Your task to perform on an android device: Find coffee shops on Maps Image 0: 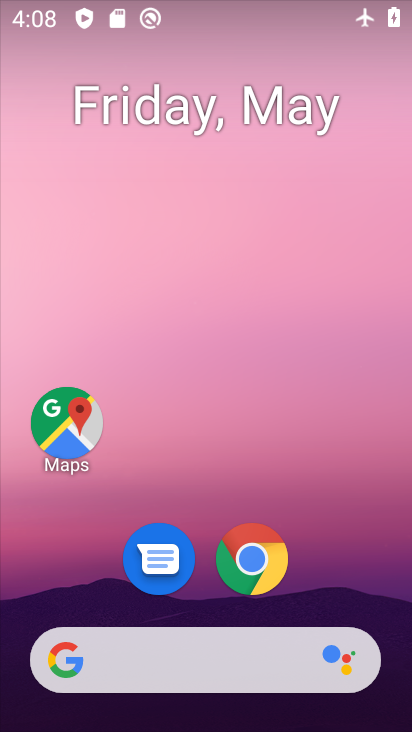
Step 0: click (57, 415)
Your task to perform on an android device: Find coffee shops on Maps Image 1: 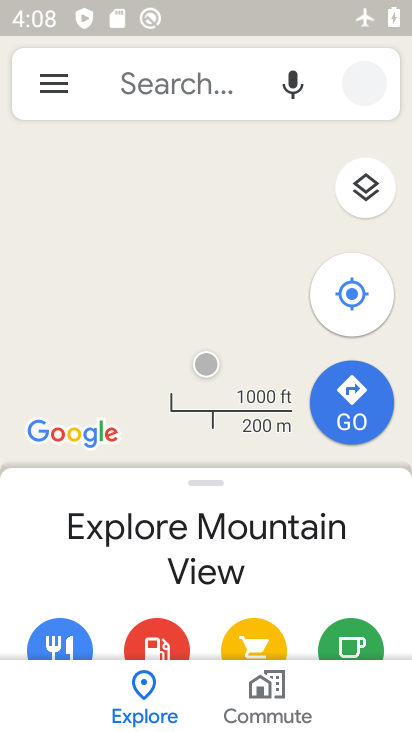
Step 1: click (165, 97)
Your task to perform on an android device: Find coffee shops on Maps Image 2: 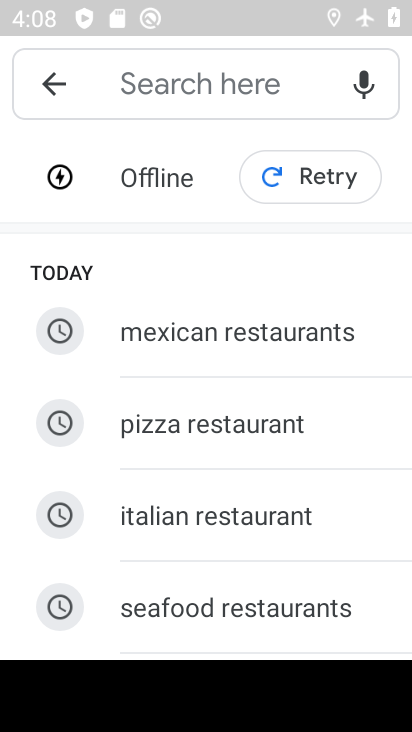
Step 2: drag from (326, 520) to (271, 111)
Your task to perform on an android device: Find coffee shops on Maps Image 3: 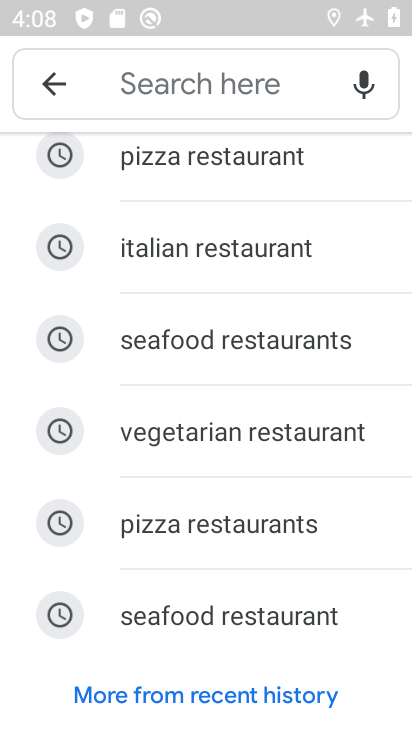
Step 3: drag from (165, 13) to (160, 672)
Your task to perform on an android device: Find coffee shops on Maps Image 4: 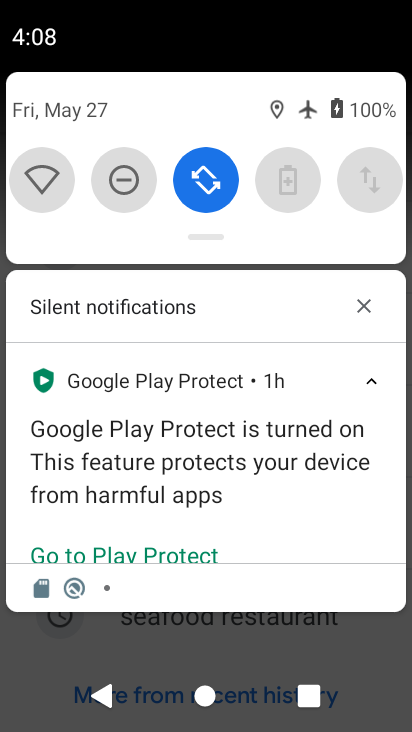
Step 4: drag from (324, 179) to (60, 199)
Your task to perform on an android device: Find coffee shops on Maps Image 5: 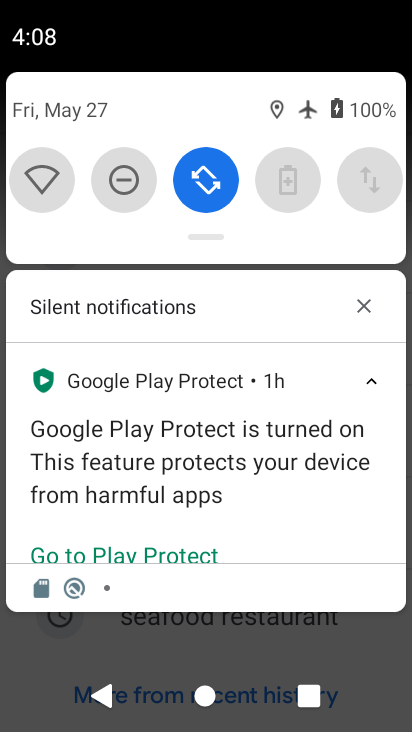
Step 5: drag from (204, 216) to (164, 715)
Your task to perform on an android device: Find coffee shops on Maps Image 6: 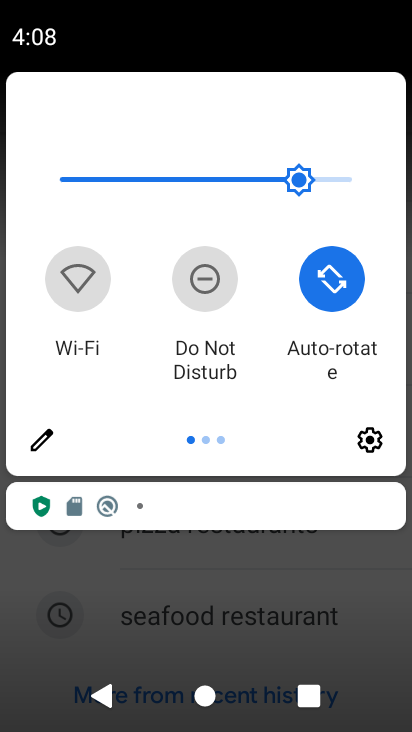
Step 6: drag from (324, 381) to (13, 412)
Your task to perform on an android device: Find coffee shops on Maps Image 7: 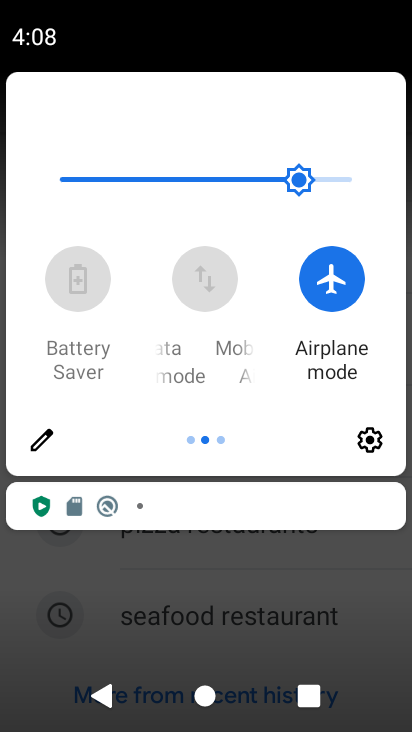
Step 7: click (338, 277)
Your task to perform on an android device: Find coffee shops on Maps Image 8: 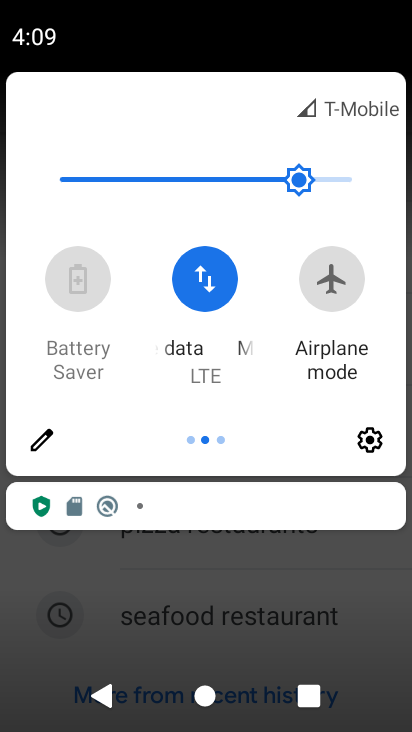
Step 8: drag from (284, 554) to (202, 140)
Your task to perform on an android device: Find coffee shops on Maps Image 9: 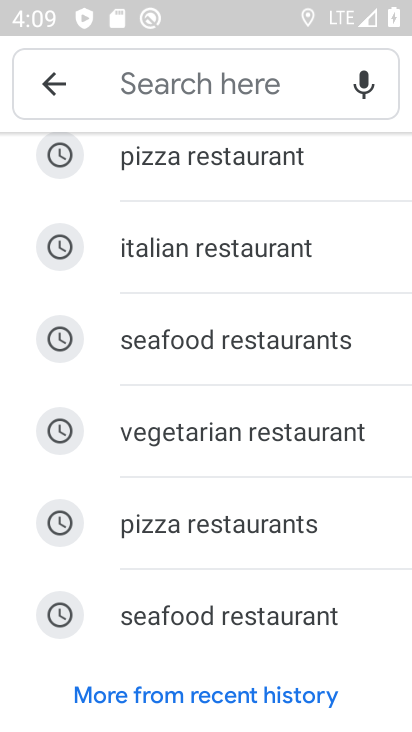
Step 9: click (152, 71)
Your task to perform on an android device: Find coffee shops on Maps Image 10: 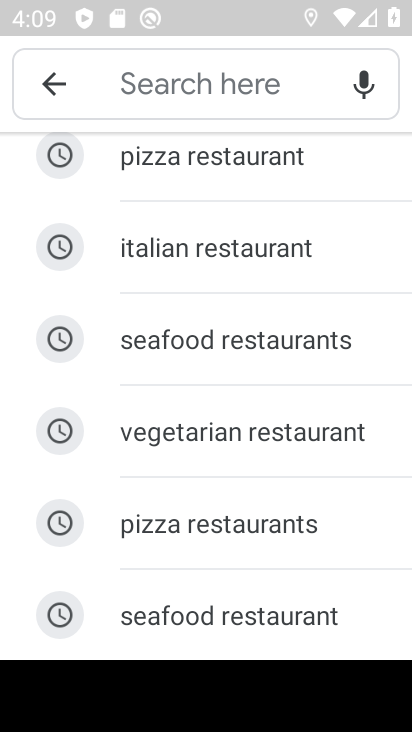
Step 10: type "coffee shop"
Your task to perform on an android device: Find coffee shops on Maps Image 11: 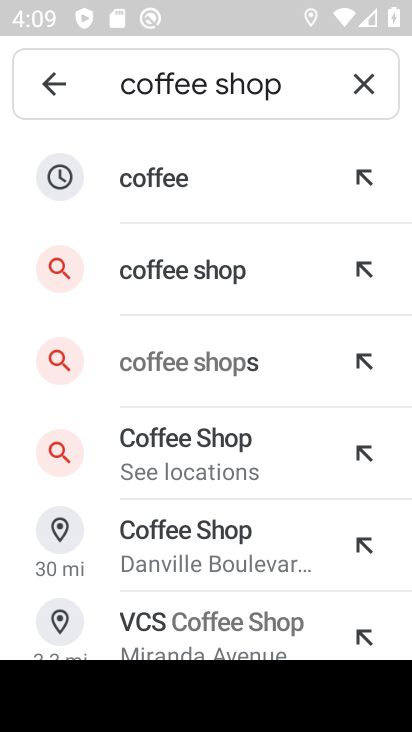
Step 11: click (220, 354)
Your task to perform on an android device: Find coffee shops on Maps Image 12: 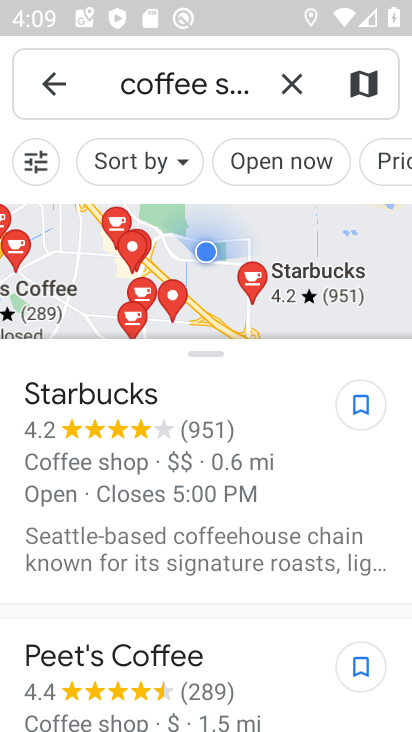
Step 12: task complete